Your task to perform on an android device: Empty the shopping cart on bestbuy.com. Add apple airpods pro to the cart on bestbuy.com Image 0: 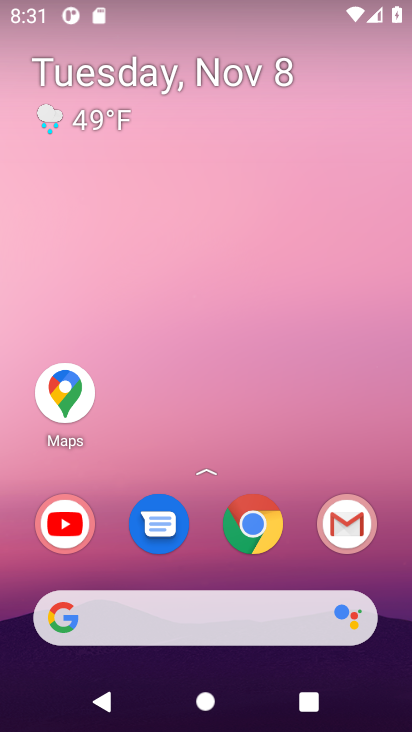
Step 0: click (251, 530)
Your task to perform on an android device: Empty the shopping cart on bestbuy.com. Add apple airpods pro to the cart on bestbuy.com Image 1: 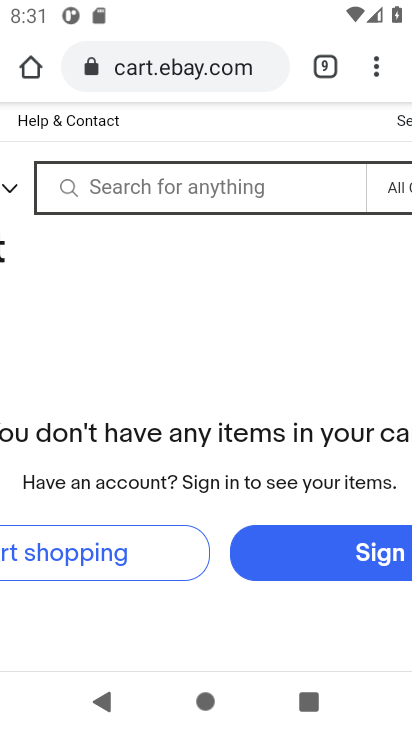
Step 1: click (197, 70)
Your task to perform on an android device: Empty the shopping cart on bestbuy.com. Add apple airpods pro to the cart on bestbuy.com Image 2: 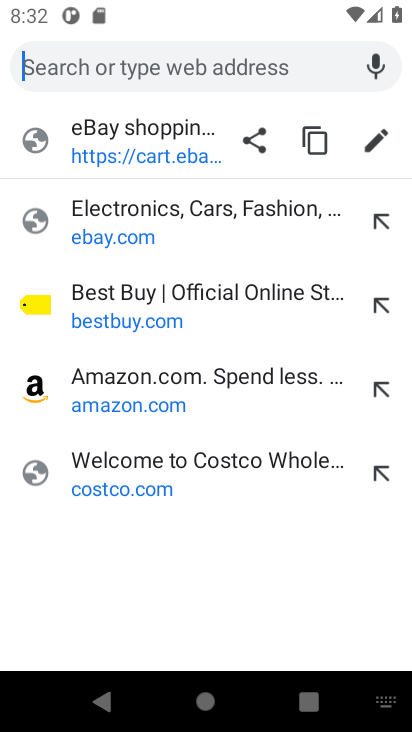
Step 2: click (89, 327)
Your task to perform on an android device: Empty the shopping cart on bestbuy.com. Add apple airpods pro to the cart on bestbuy.com Image 3: 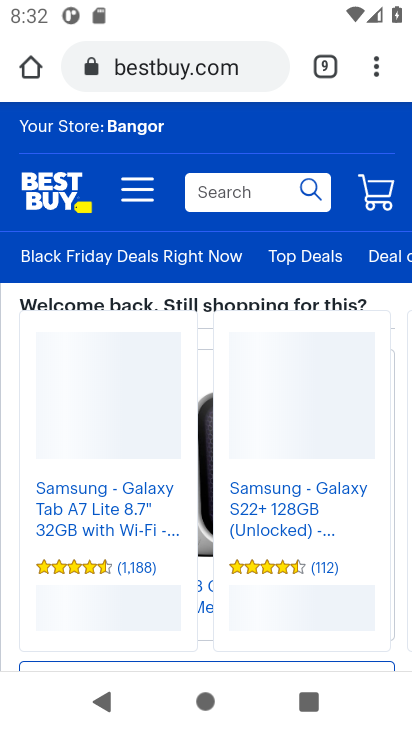
Step 3: click (378, 196)
Your task to perform on an android device: Empty the shopping cart on bestbuy.com. Add apple airpods pro to the cart on bestbuy.com Image 4: 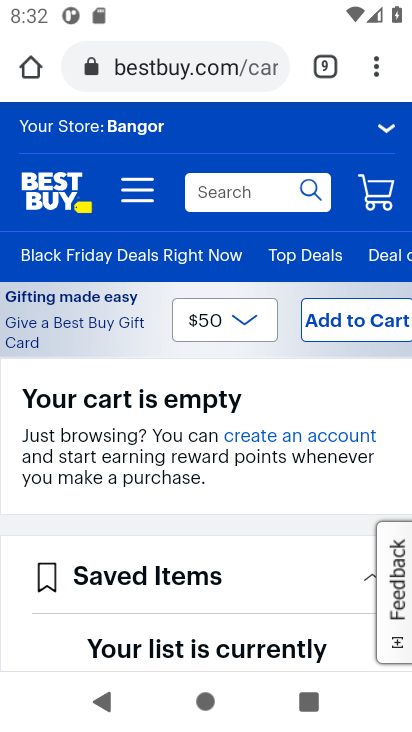
Step 4: drag from (223, 473) to (226, 300)
Your task to perform on an android device: Empty the shopping cart on bestbuy.com. Add apple airpods pro to the cart on bestbuy.com Image 5: 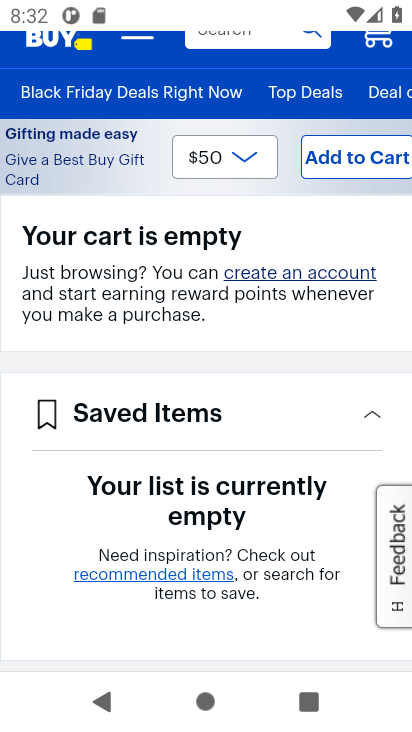
Step 5: drag from (245, 318) to (233, 526)
Your task to perform on an android device: Empty the shopping cart on bestbuy.com. Add apple airpods pro to the cart on bestbuy.com Image 6: 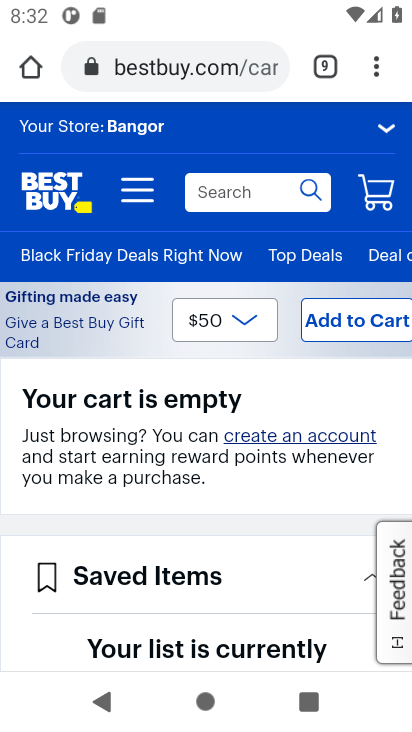
Step 6: click (278, 184)
Your task to perform on an android device: Empty the shopping cart on bestbuy.com. Add apple airpods pro to the cart on bestbuy.com Image 7: 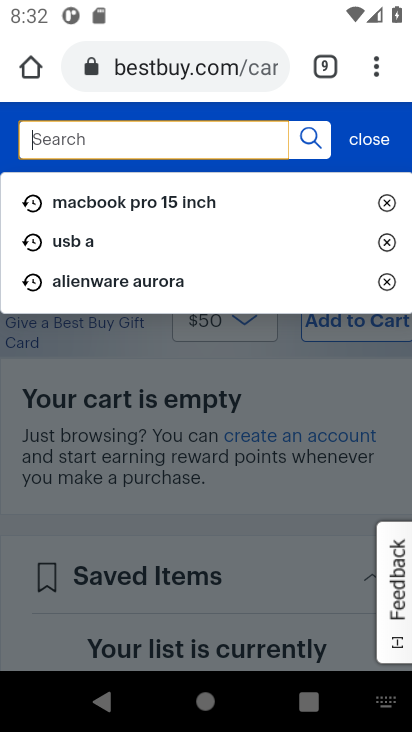
Step 7: type "apple airpods pro"
Your task to perform on an android device: Empty the shopping cart on bestbuy.com. Add apple airpods pro to the cart on bestbuy.com Image 8: 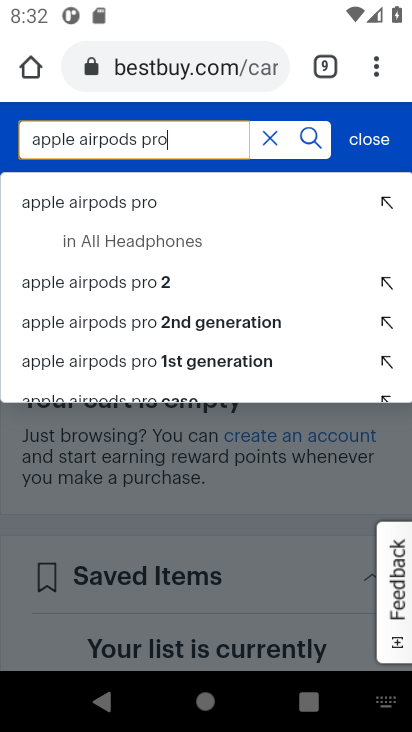
Step 8: click (112, 210)
Your task to perform on an android device: Empty the shopping cart on bestbuy.com. Add apple airpods pro to the cart on bestbuy.com Image 9: 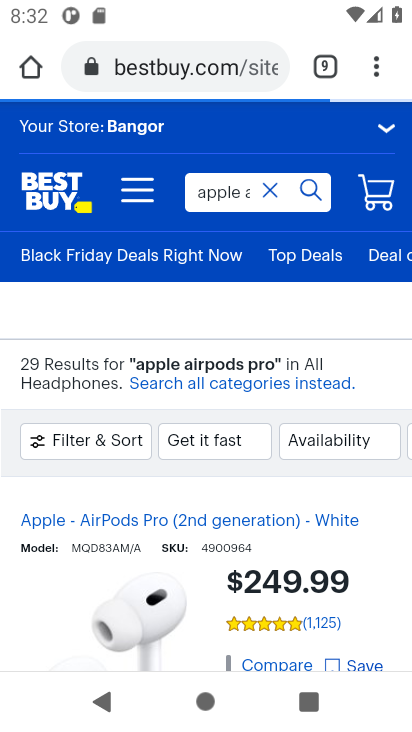
Step 9: drag from (196, 512) to (195, 277)
Your task to perform on an android device: Empty the shopping cart on bestbuy.com. Add apple airpods pro to the cart on bestbuy.com Image 10: 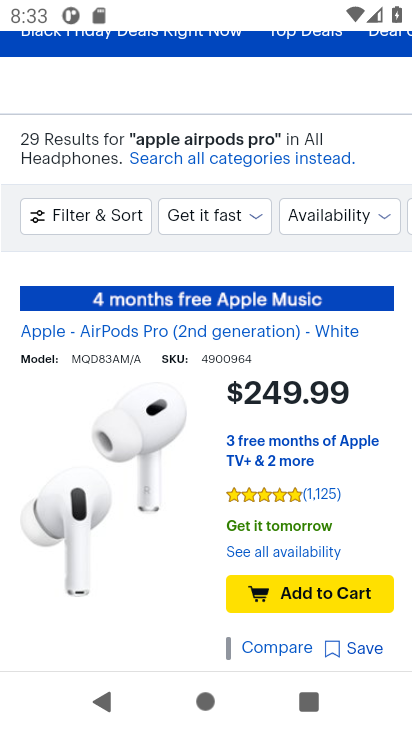
Step 10: click (308, 590)
Your task to perform on an android device: Empty the shopping cart on bestbuy.com. Add apple airpods pro to the cart on bestbuy.com Image 11: 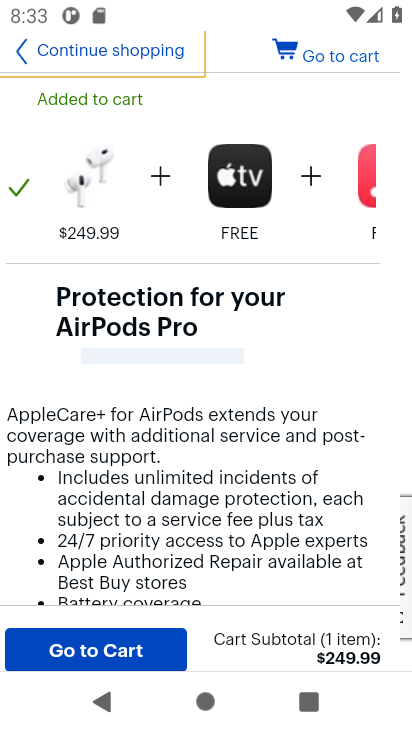
Step 11: task complete